Your task to perform on an android device: check out phone information Image 0: 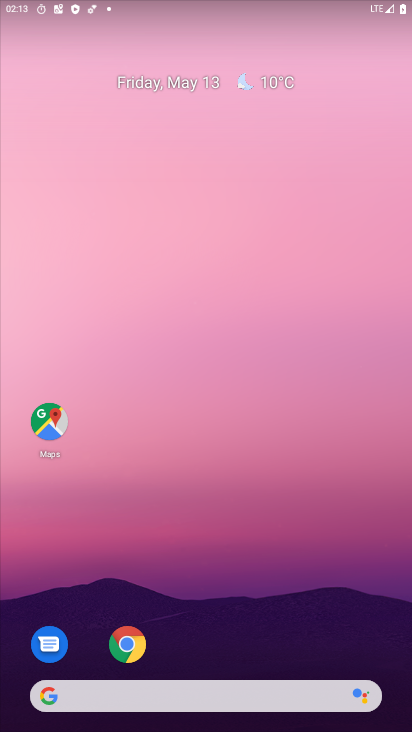
Step 0: drag from (227, 708) to (192, 13)
Your task to perform on an android device: check out phone information Image 1: 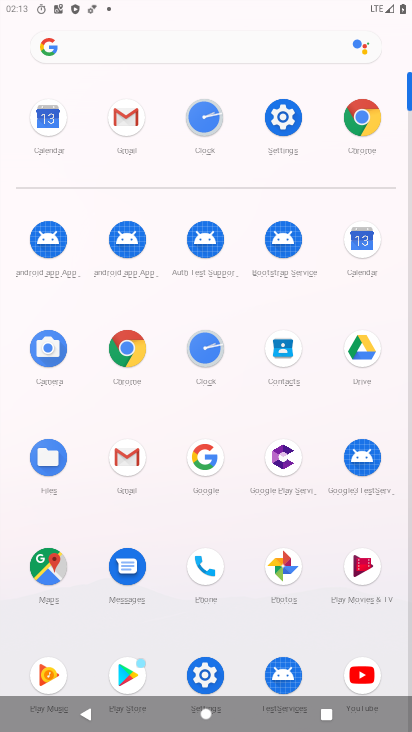
Step 1: click (284, 116)
Your task to perform on an android device: check out phone information Image 2: 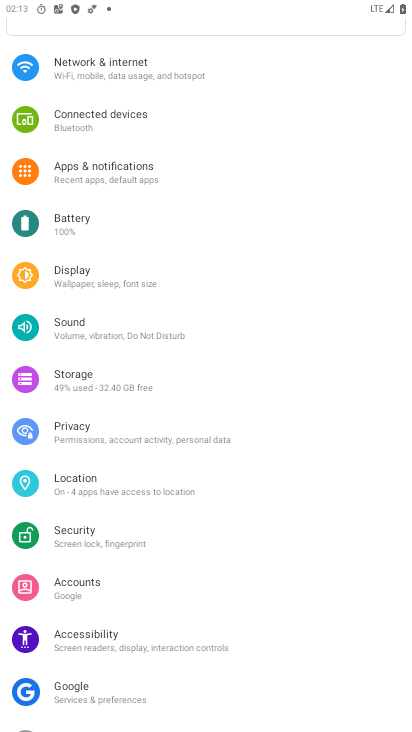
Step 2: drag from (177, 685) to (229, 69)
Your task to perform on an android device: check out phone information Image 3: 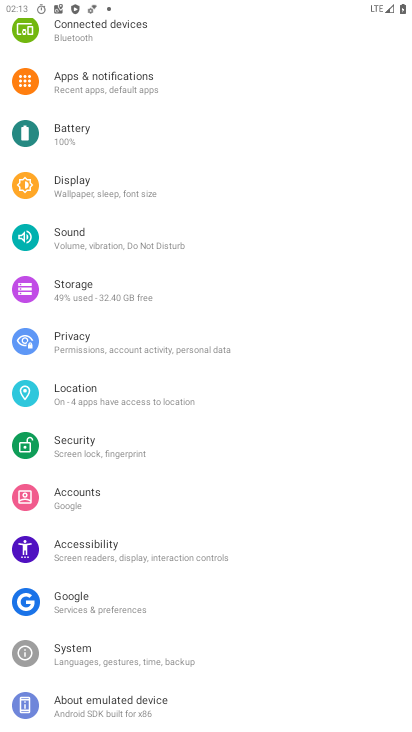
Step 3: click (166, 711)
Your task to perform on an android device: check out phone information Image 4: 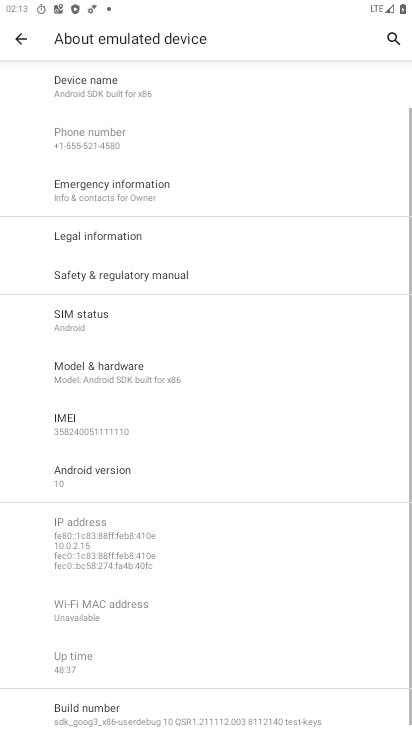
Step 4: task complete